Your task to perform on an android device: Open the web browser Image 0: 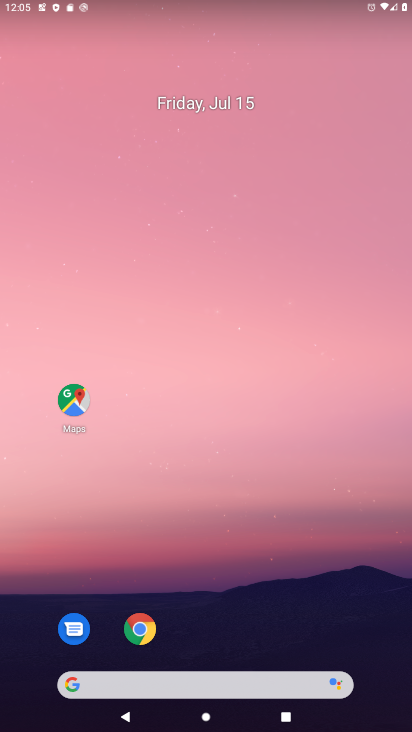
Step 0: press home button
Your task to perform on an android device: Open the web browser Image 1: 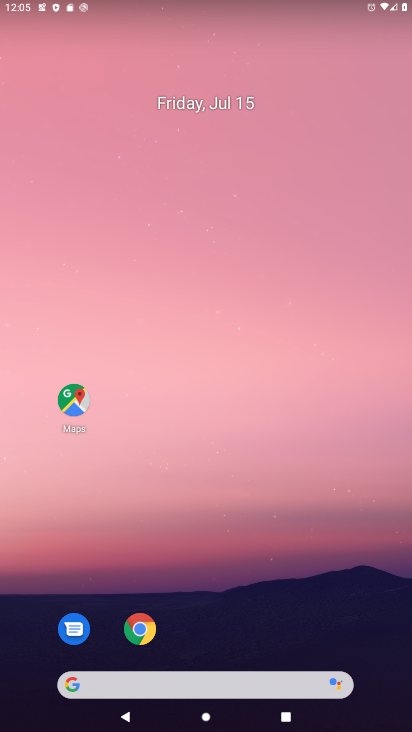
Step 1: click (71, 689)
Your task to perform on an android device: Open the web browser Image 2: 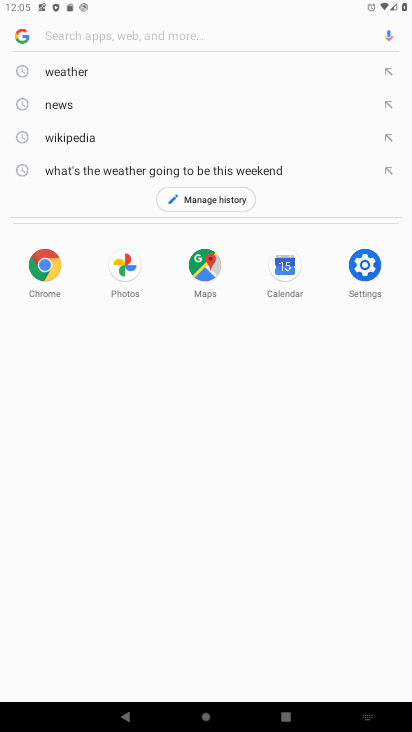
Step 2: task complete